Your task to perform on an android device: Go to Reddit.com Image 0: 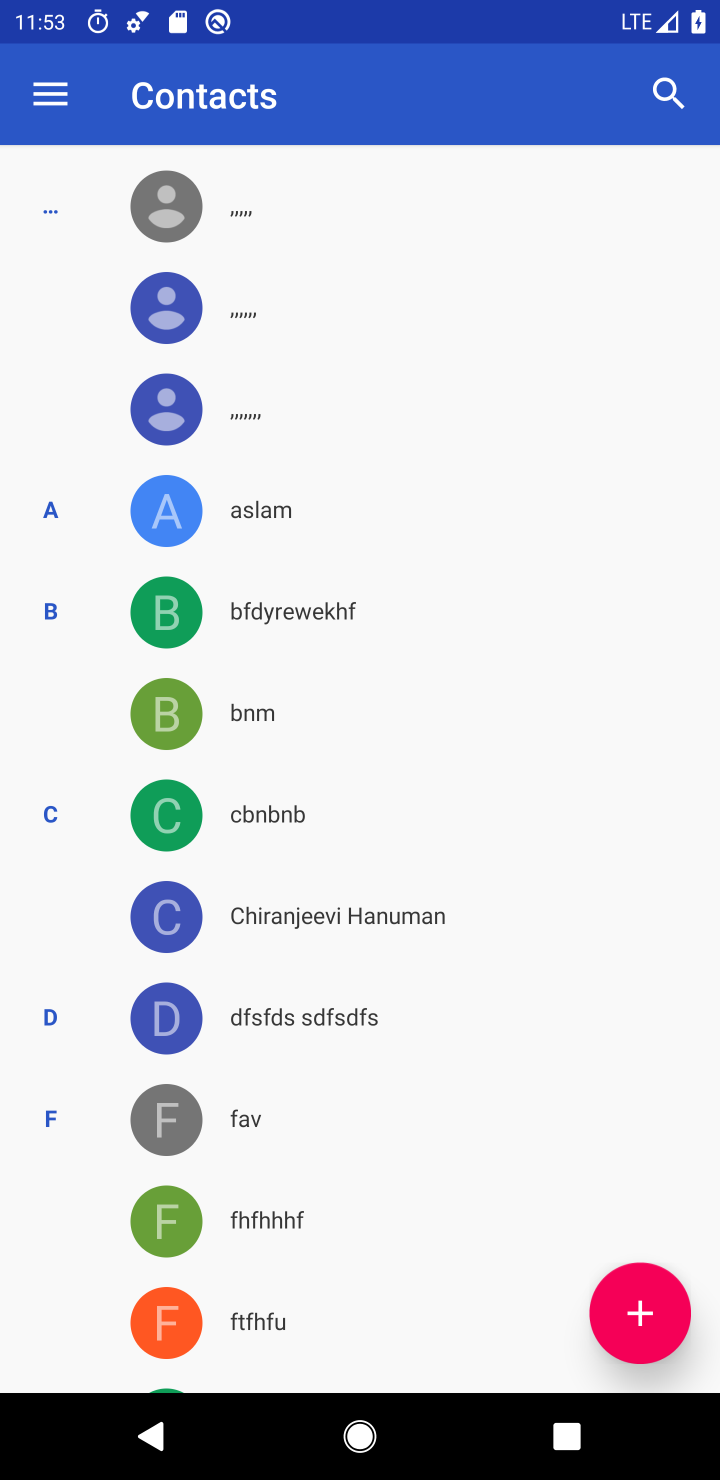
Step 0: press home button
Your task to perform on an android device: Go to Reddit.com Image 1: 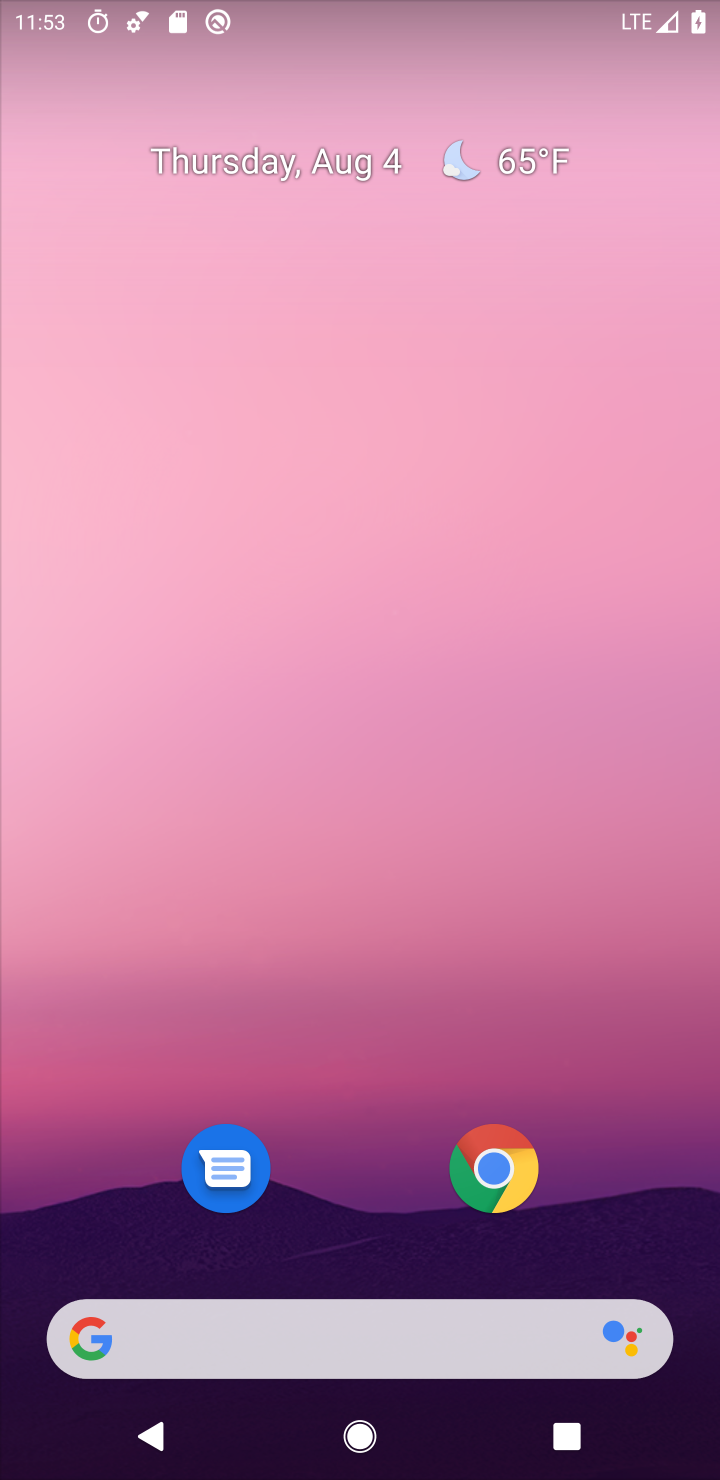
Step 1: click (486, 1170)
Your task to perform on an android device: Go to Reddit.com Image 2: 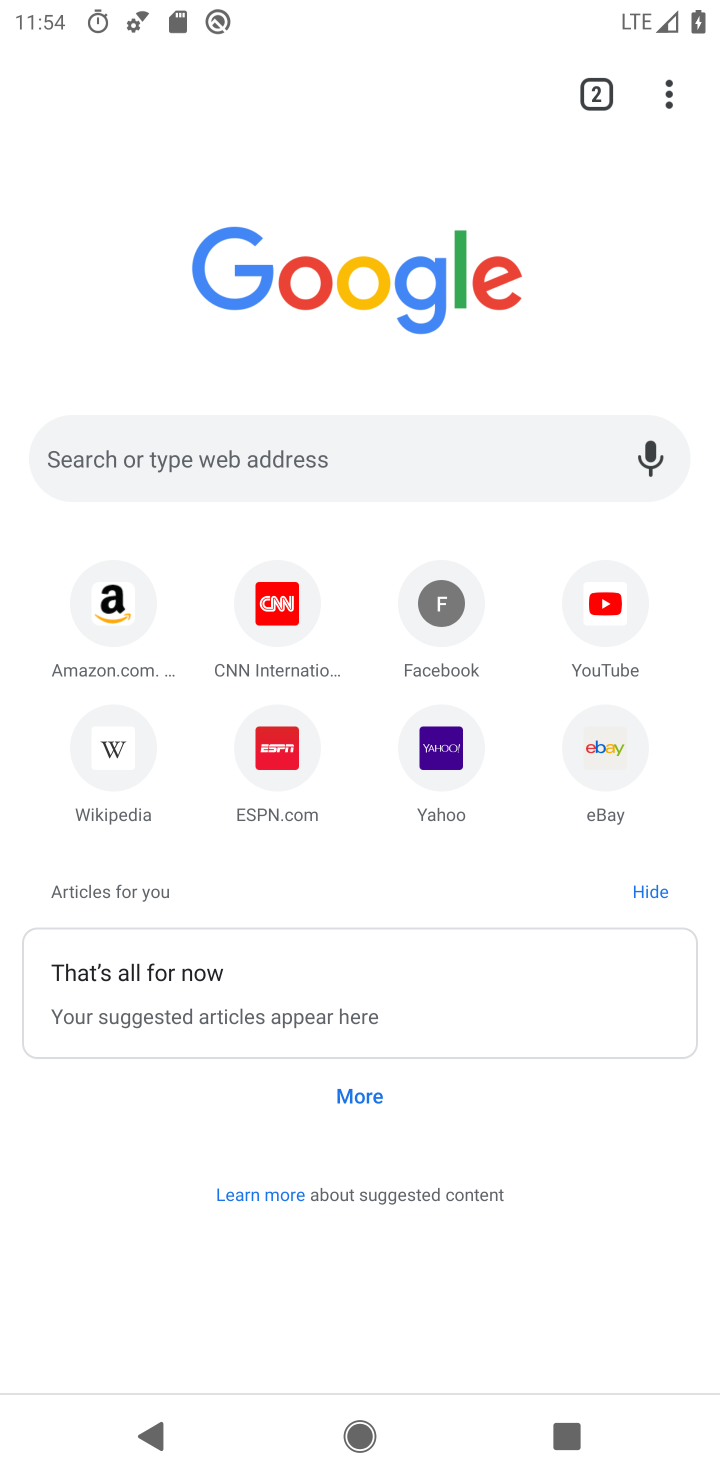
Step 2: click (326, 461)
Your task to perform on an android device: Go to Reddit.com Image 3: 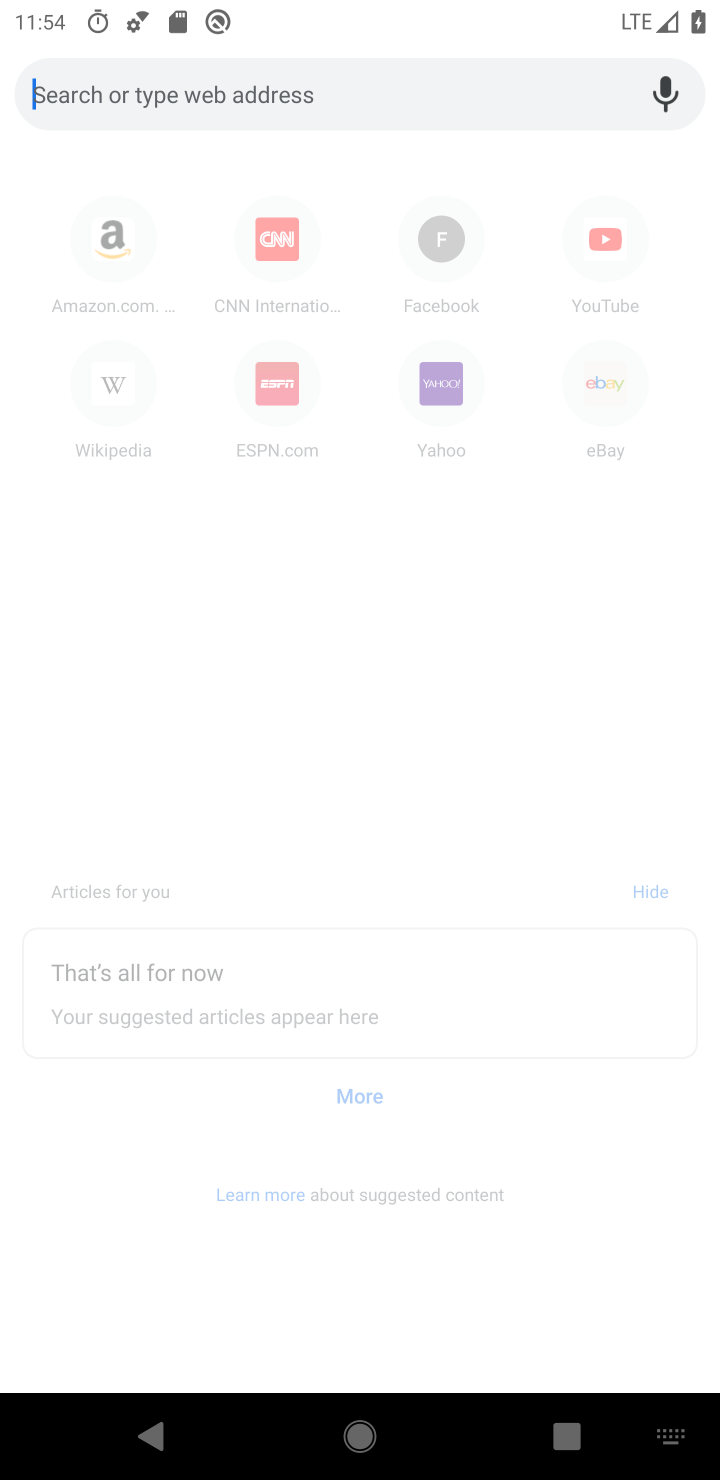
Step 3: type "reddit.com"
Your task to perform on an android device: Go to Reddit.com Image 4: 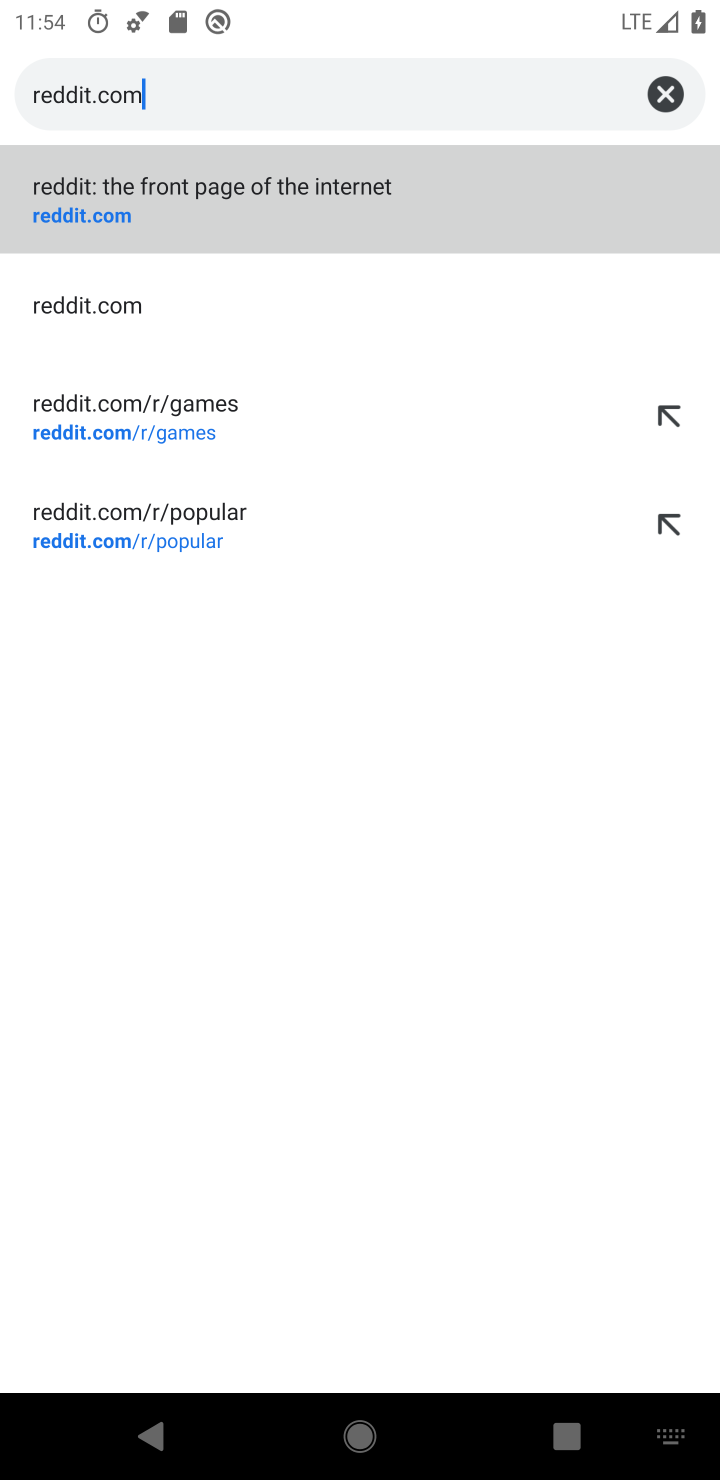
Step 4: click (312, 80)
Your task to perform on an android device: Go to Reddit.com Image 5: 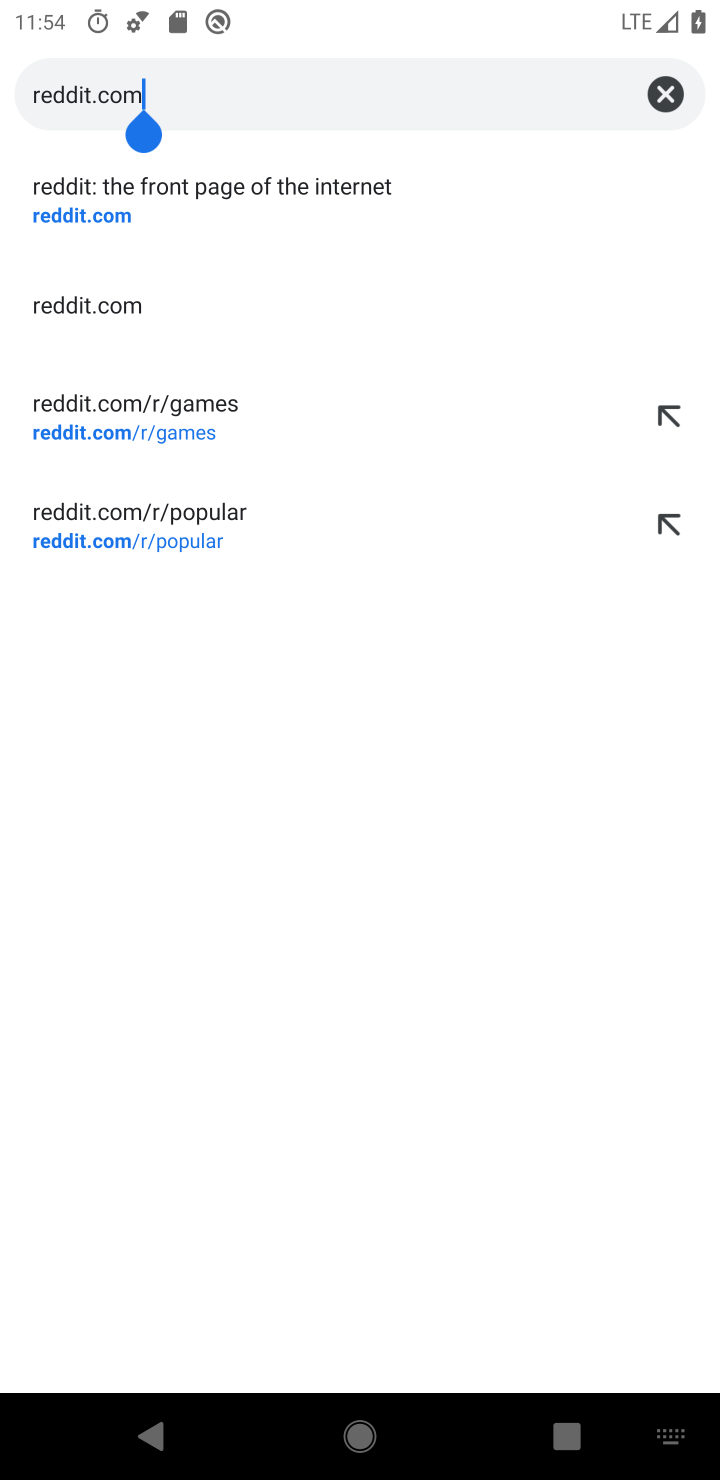
Step 5: click (134, 227)
Your task to perform on an android device: Go to Reddit.com Image 6: 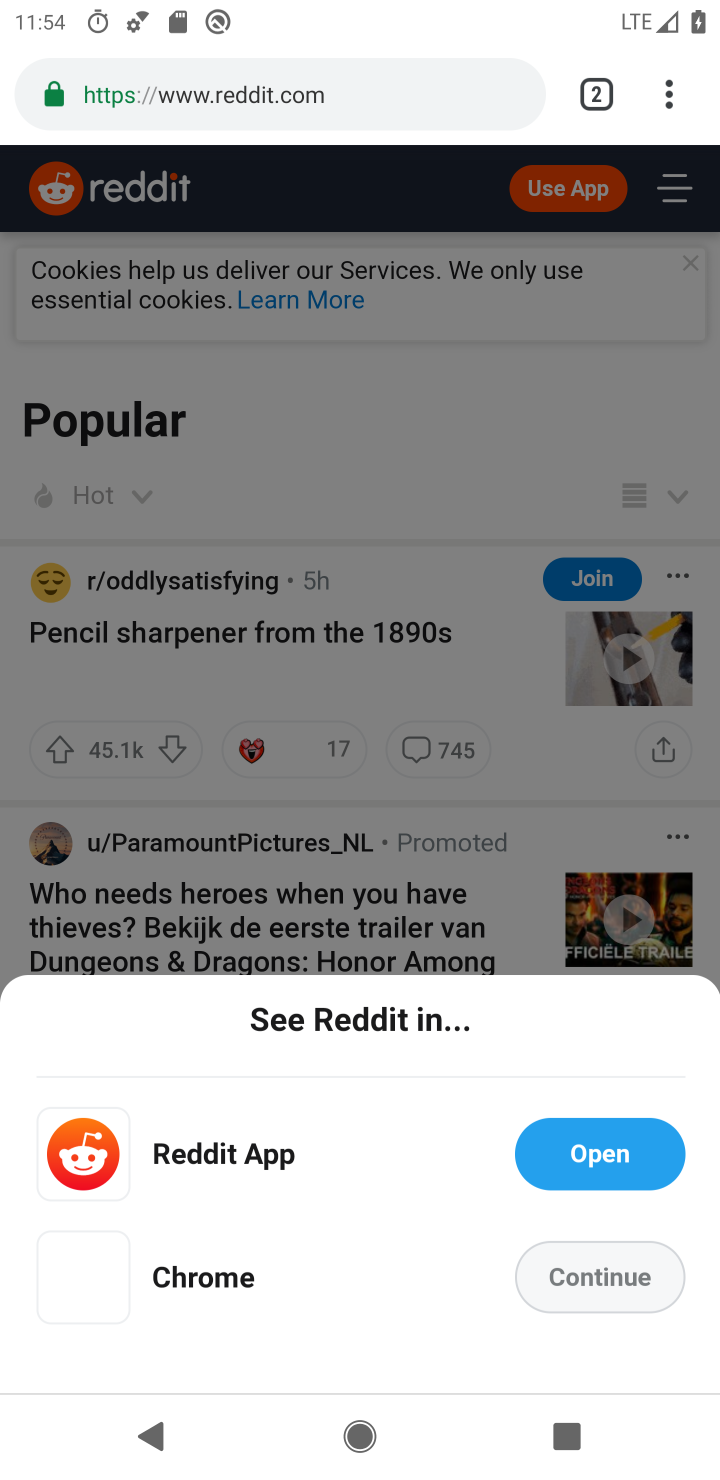
Step 6: task complete